Your task to perform on an android device: toggle data saver in the chrome app Image 0: 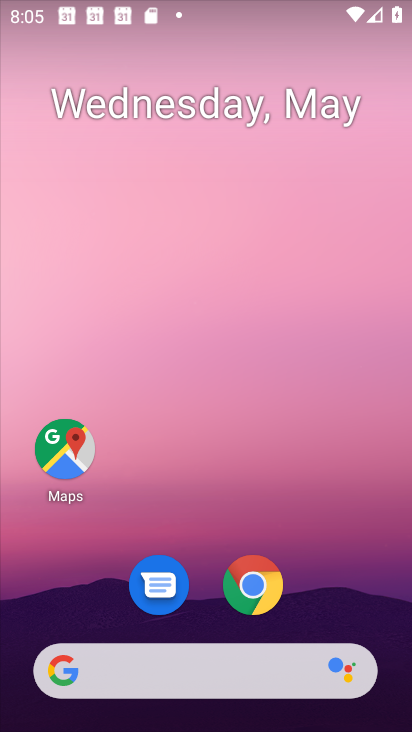
Step 0: drag from (320, 546) to (294, 89)
Your task to perform on an android device: toggle data saver in the chrome app Image 1: 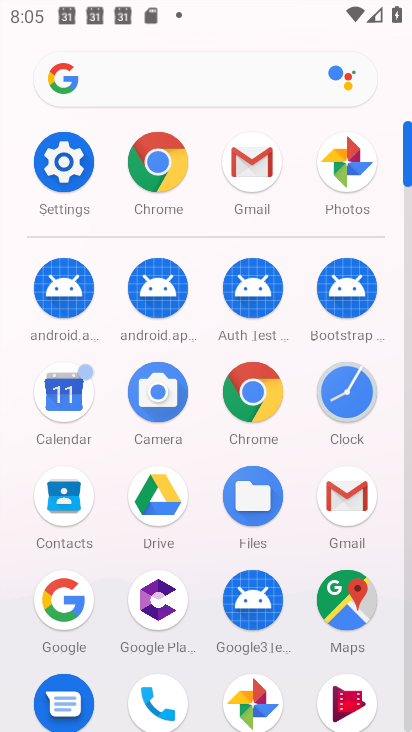
Step 1: click (171, 155)
Your task to perform on an android device: toggle data saver in the chrome app Image 2: 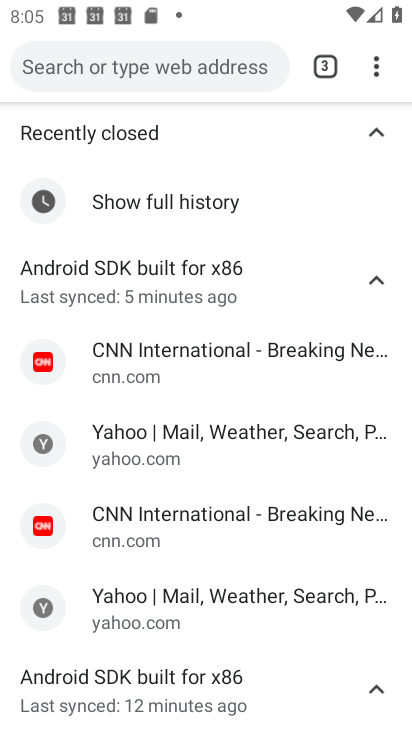
Step 2: click (375, 71)
Your task to perform on an android device: toggle data saver in the chrome app Image 3: 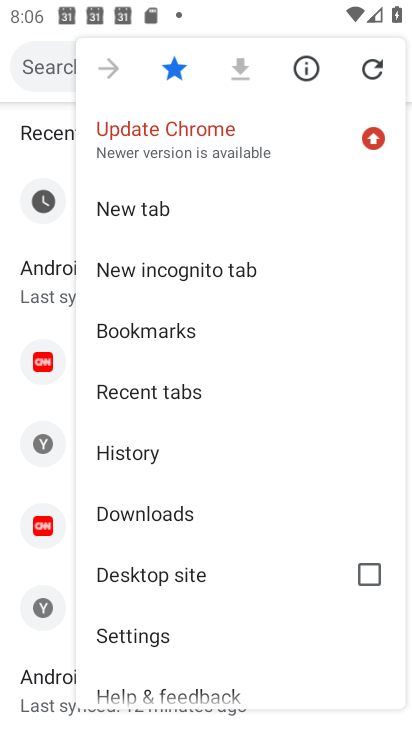
Step 3: click (217, 633)
Your task to perform on an android device: toggle data saver in the chrome app Image 4: 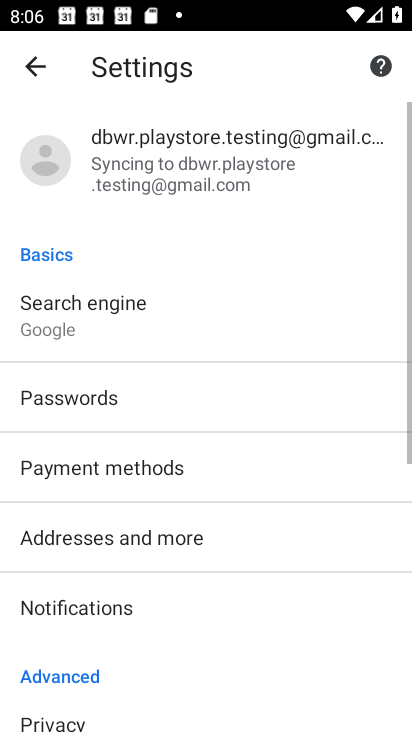
Step 4: drag from (217, 631) to (272, 113)
Your task to perform on an android device: toggle data saver in the chrome app Image 5: 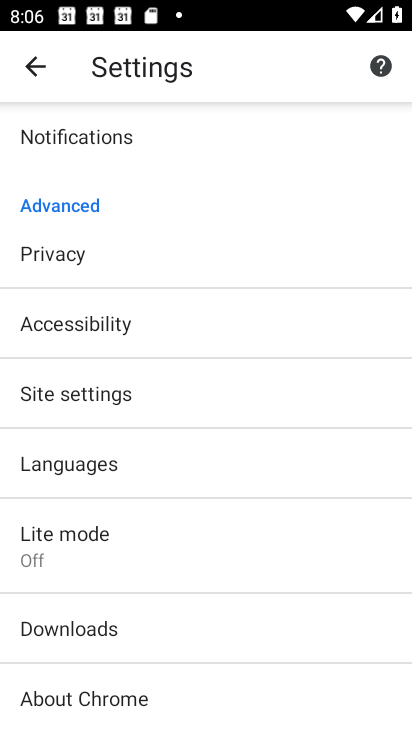
Step 5: click (147, 543)
Your task to perform on an android device: toggle data saver in the chrome app Image 6: 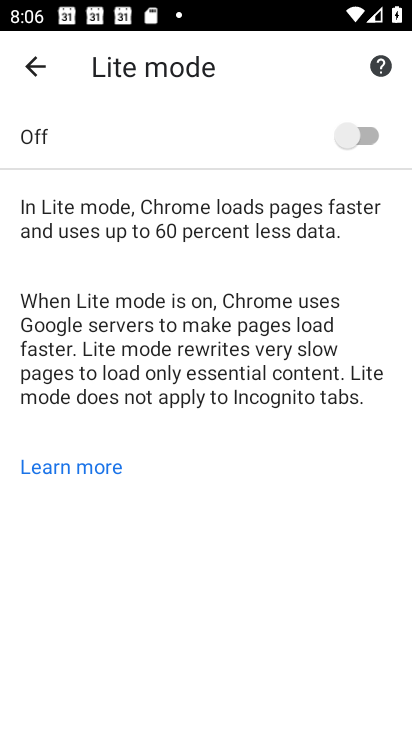
Step 6: click (359, 132)
Your task to perform on an android device: toggle data saver in the chrome app Image 7: 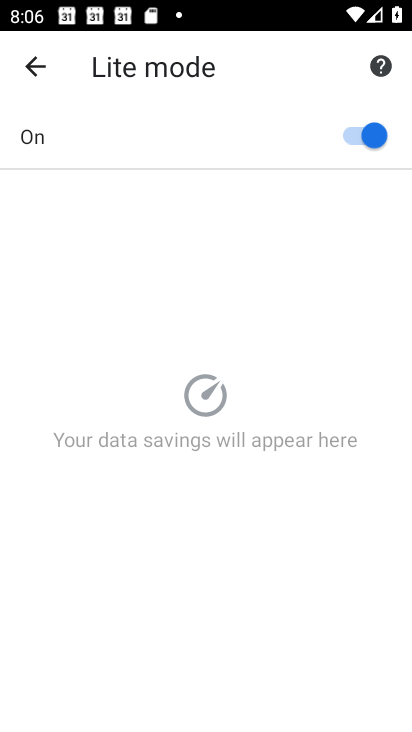
Step 7: task complete